Your task to perform on an android device: check storage Image 0: 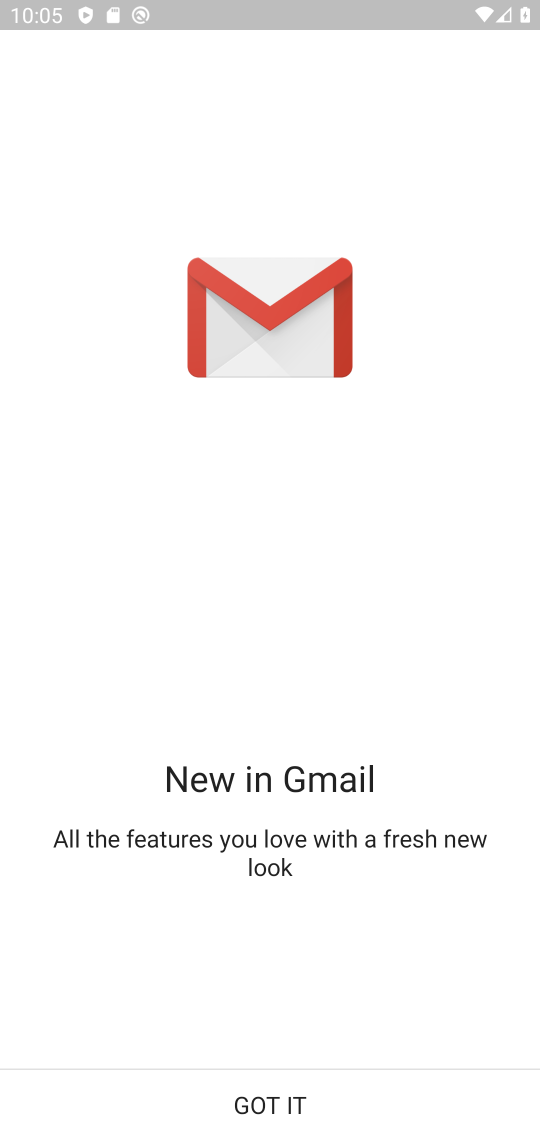
Step 0: press home button
Your task to perform on an android device: check storage Image 1: 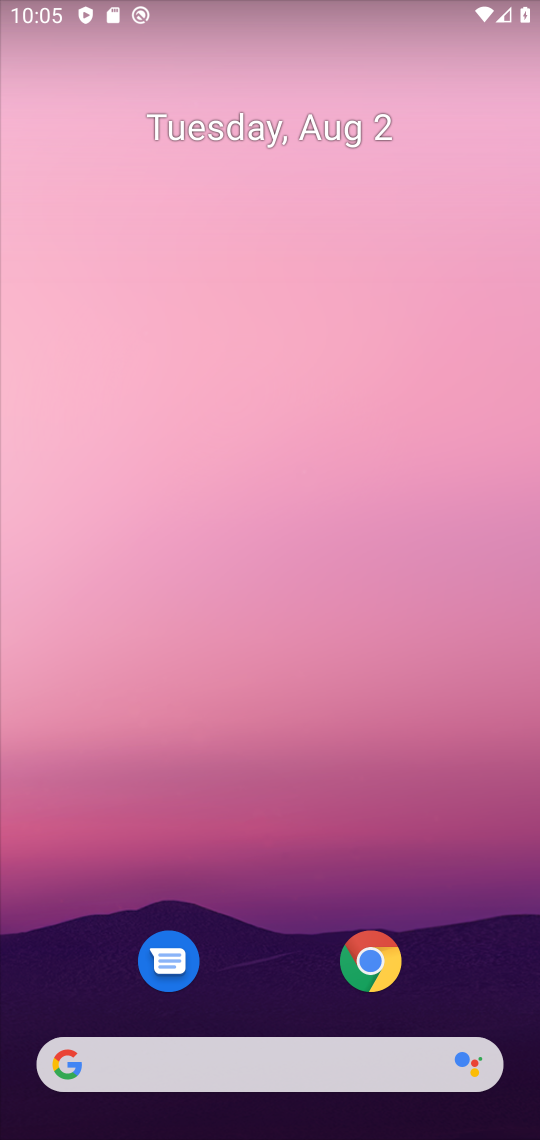
Step 1: drag from (273, 968) to (298, 68)
Your task to perform on an android device: check storage Image 2: 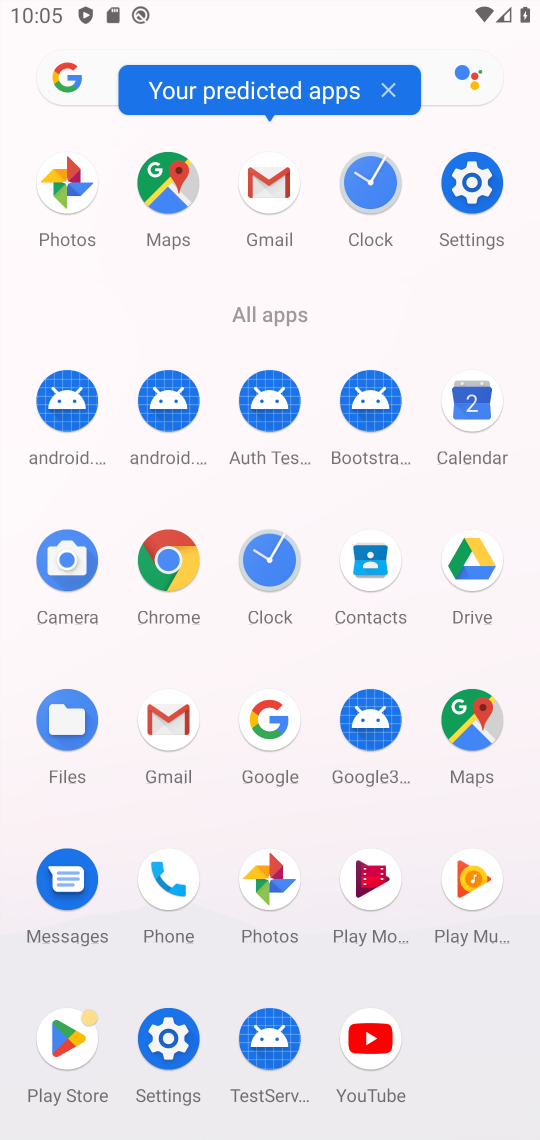
Step 2: click (464, 174)
Your task to perform on an android device: check storage Image 3: 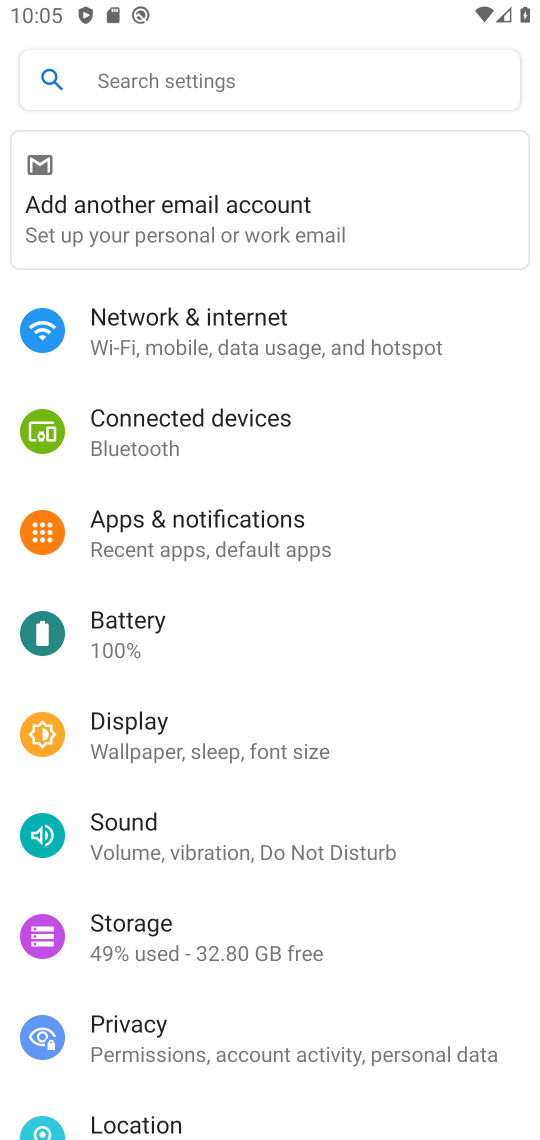
Step 3: click (202, 928)
Your task to perform on an android device: check storage Image 4: 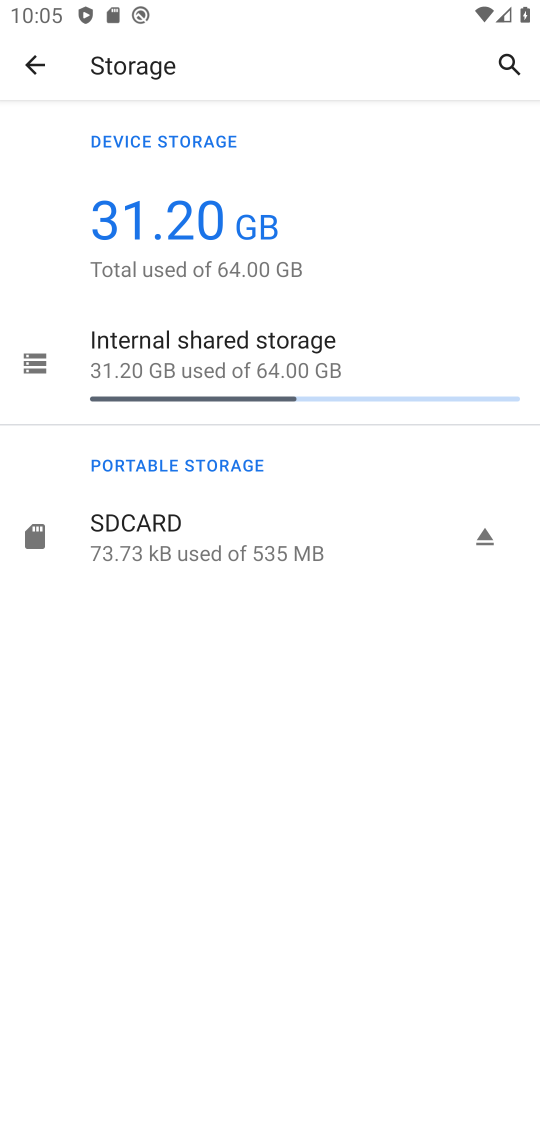
Step 4: task complete